Your task to perform on an android device: change keyboard looks Image 0: 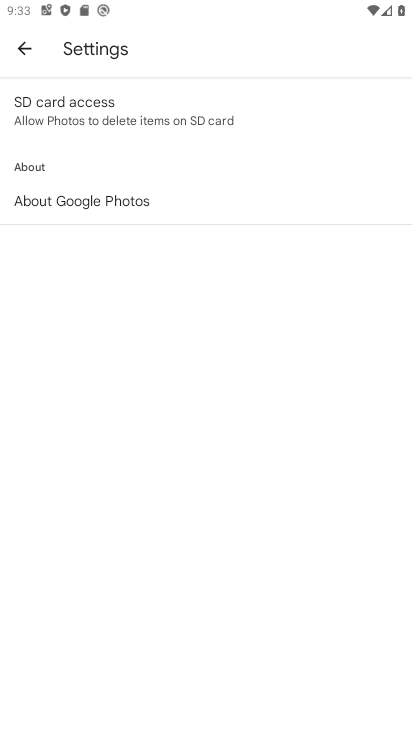
Step 0: press home button
Your task to perform on an android device: change keyboard looks Image 1: 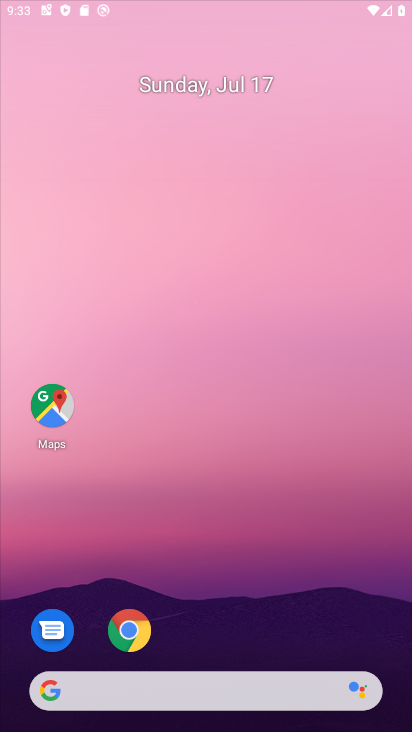
Step 1: drag from (270, 674) to (281, 6)
Your task to perform on an android device: change keyboard looks Image 2: 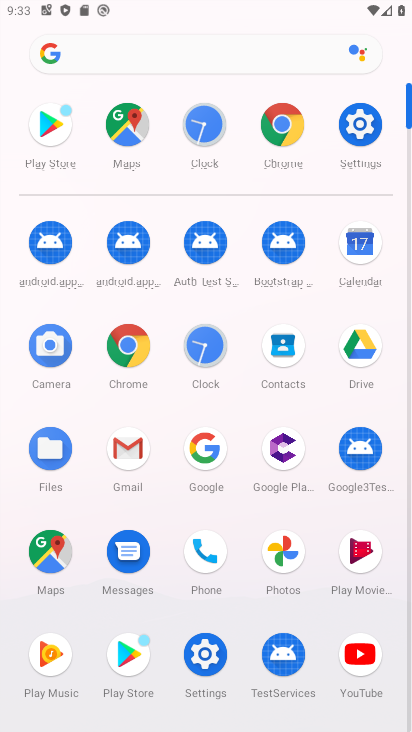
Step 2: click (349, 129)
Your task to perform on an android device: change keyboard looks Image 3: 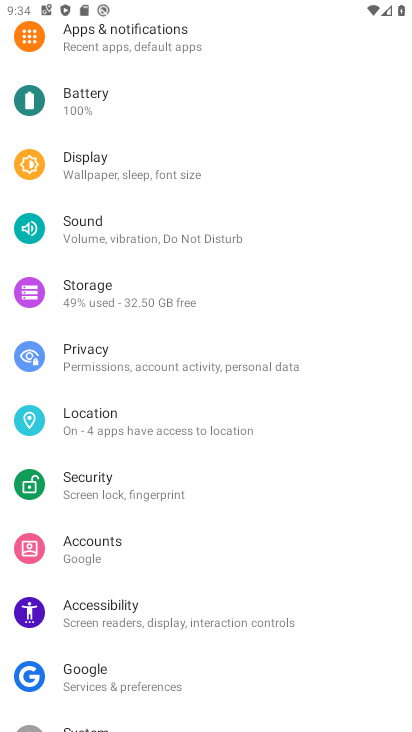
Step 3: drag from (200, 692) to (221, 350)
Your task to perform on an android device: change keyboard looks Image 4: 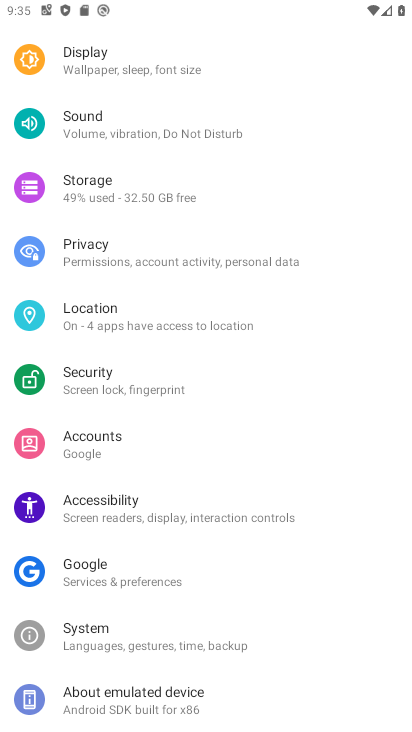
Step 4: click (66, 633)
Your task to perform on an android device: change keyboard looks Image 5: 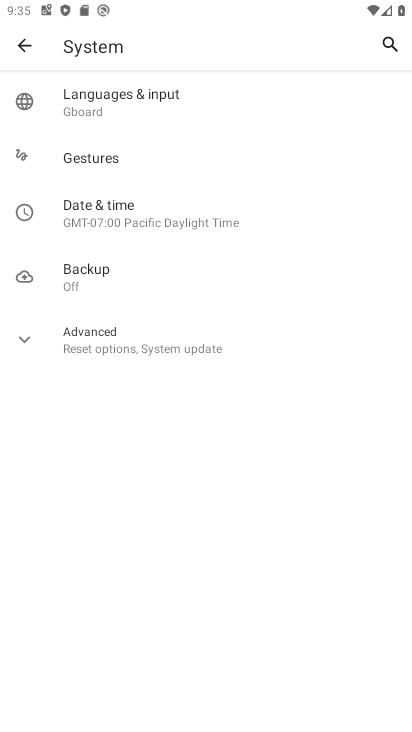
Step 5: click (133, 98)
Your task to perform on an android device: change keyboard looks Image 6: 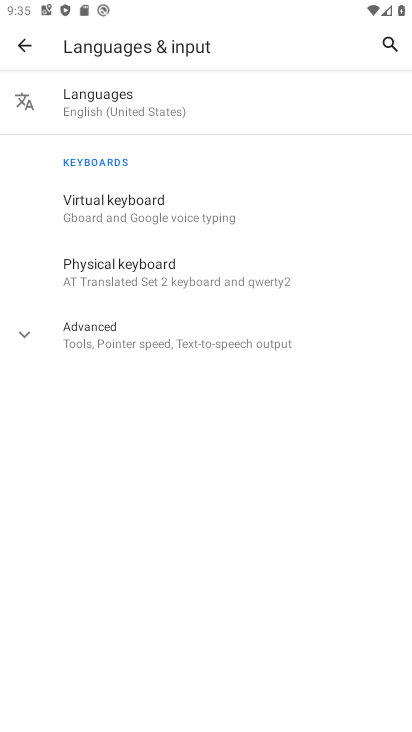
Step 6: click (108, 215)
Your task to perform on an android device: change keyboard looks Image 7: 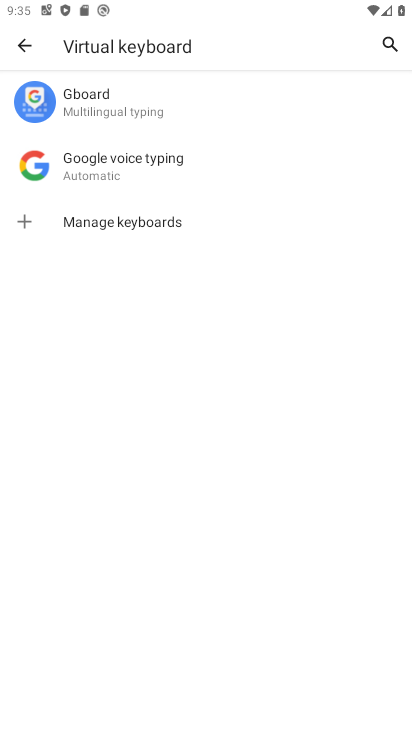
Step 7: click (87, 93)
Your task to perform on an android device: change keyboard looks Image 8: 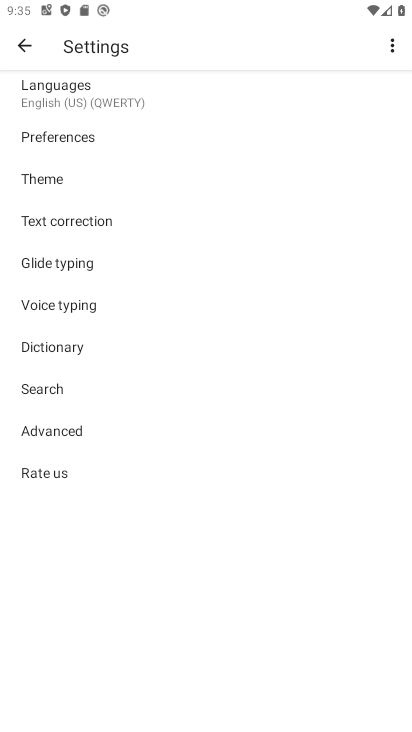
Step 8: click (71, 176)
Your task to perform on an android device: change keyboard looks Image 9: 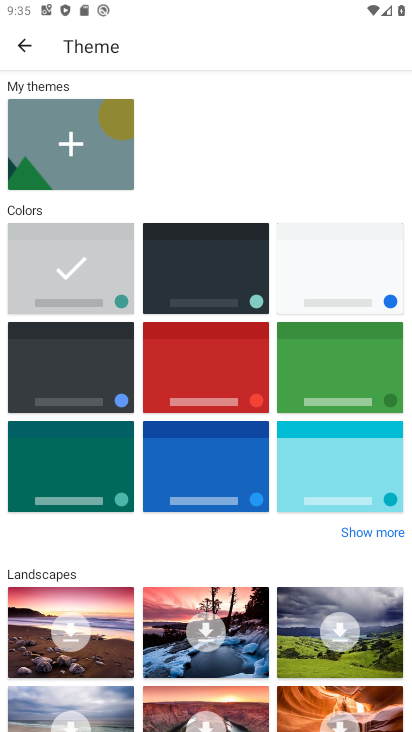
Step 9: click (228, 466)
Your task to perform on an android device: change keyboard looks Image 10: 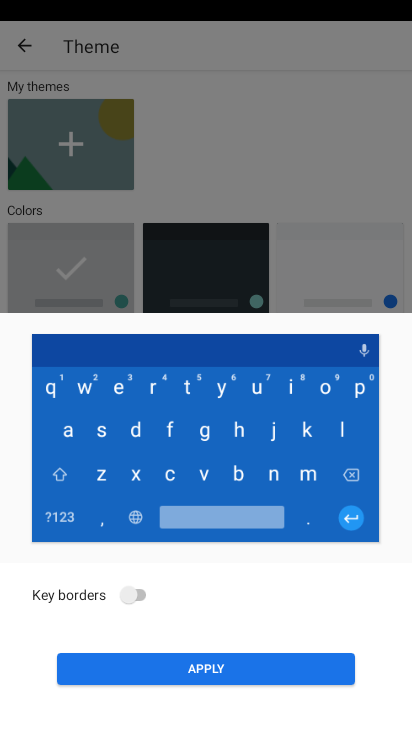
Step 10: click (267, 670)
Your task to perform on an android device: change keyboard looks Image 11: 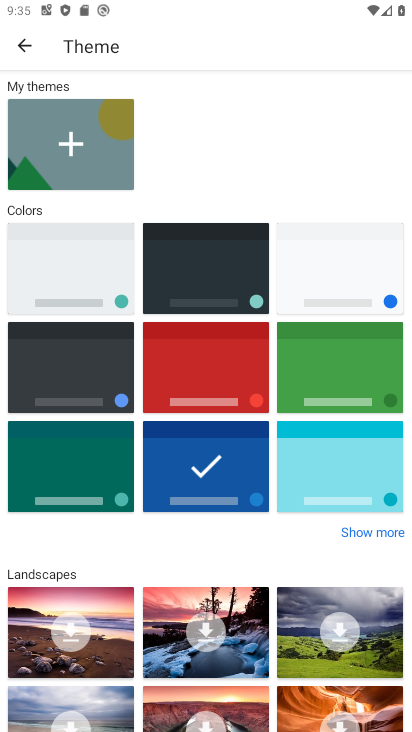
Step 11: task complete